Your task to perform on an android device: Open Google Chrome and click the shortcut for Amazon.com Image 0: 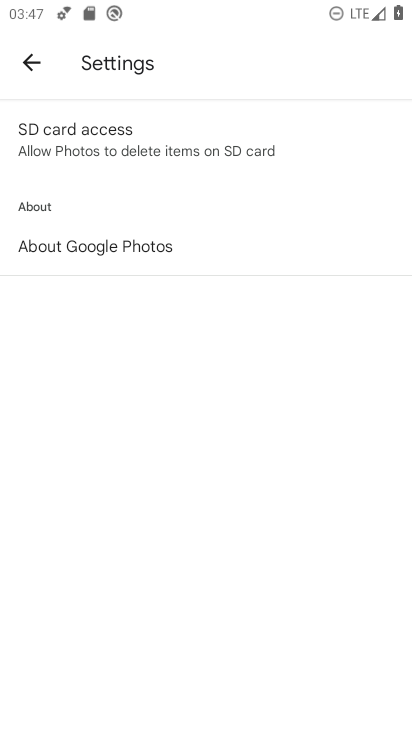
Step 0: press home button
Your task to perform on an android device: Open Google Chrome and click the shortcut for Amazon.com Image 1: 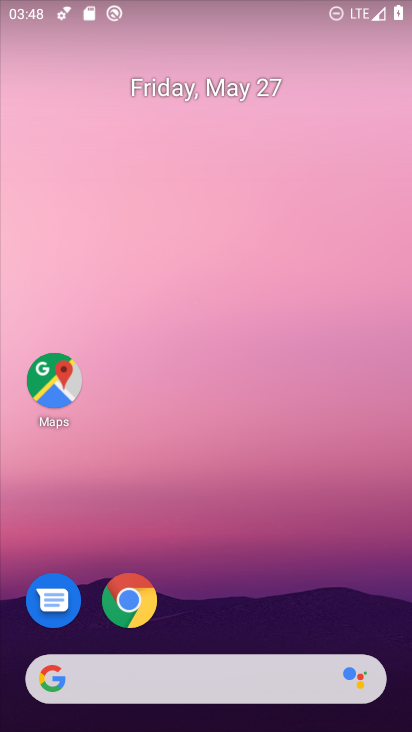
Step 1: click (133, 606)
Your task to perform on an android device: Open Google Chrome and click the shortcut for Amazon.com Image 2: 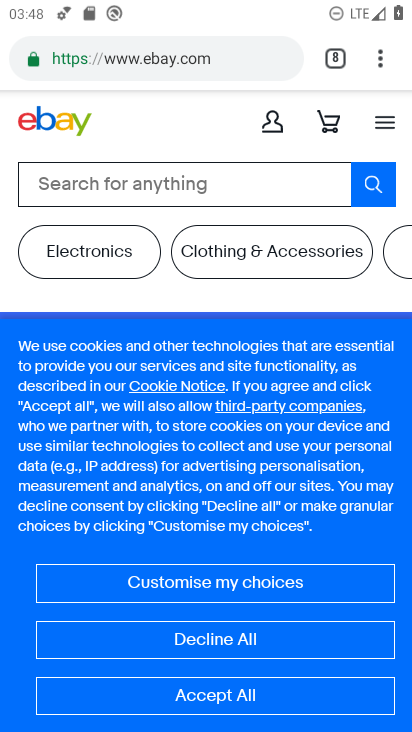
Step 2: click (380, 66)
Your task to perform on an android device: Open Google Chrome and click the shortcut for Amazon.com Image 3: 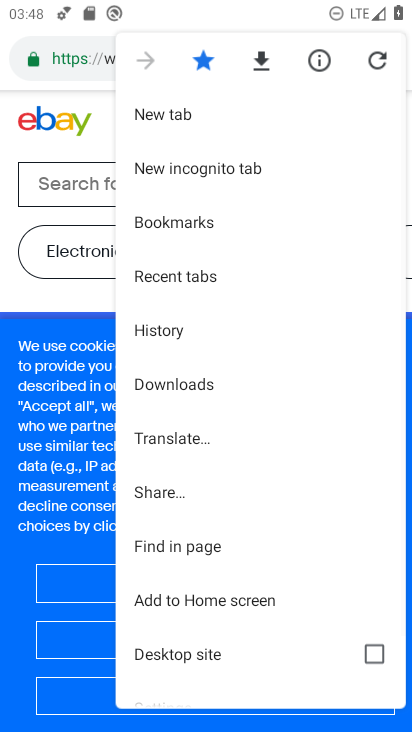
Step 3: click (180, 113)
Your task to perform on an android device: Open Google Chrome and click the shortcut for Amazon.com Image 4: 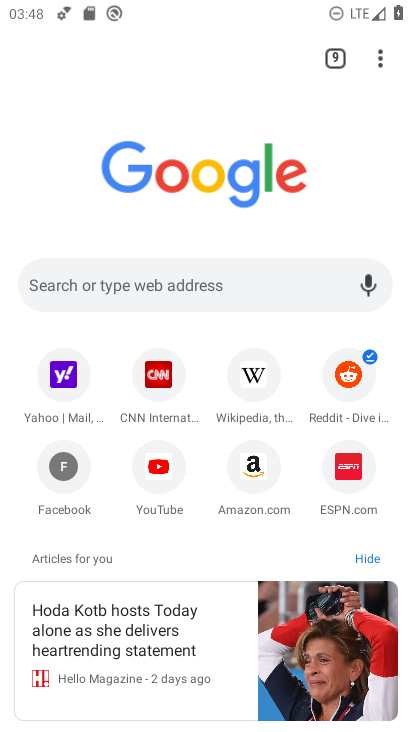
Step 4: click (255, 473)
Your task to perform on an android device: Open Google Chrome and click the shortcut for Amazon.com Image 5: 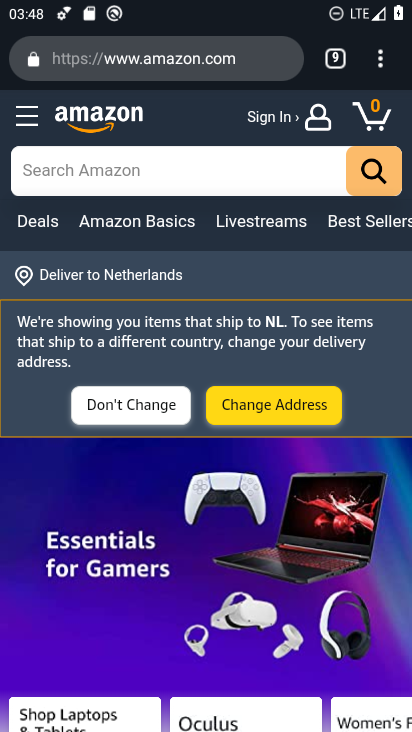
Step 5: task complete